Your task to perform on an android device: open app "PUBG MOBILE" (install if not already installed), go to login, and select forgot password Image 0: 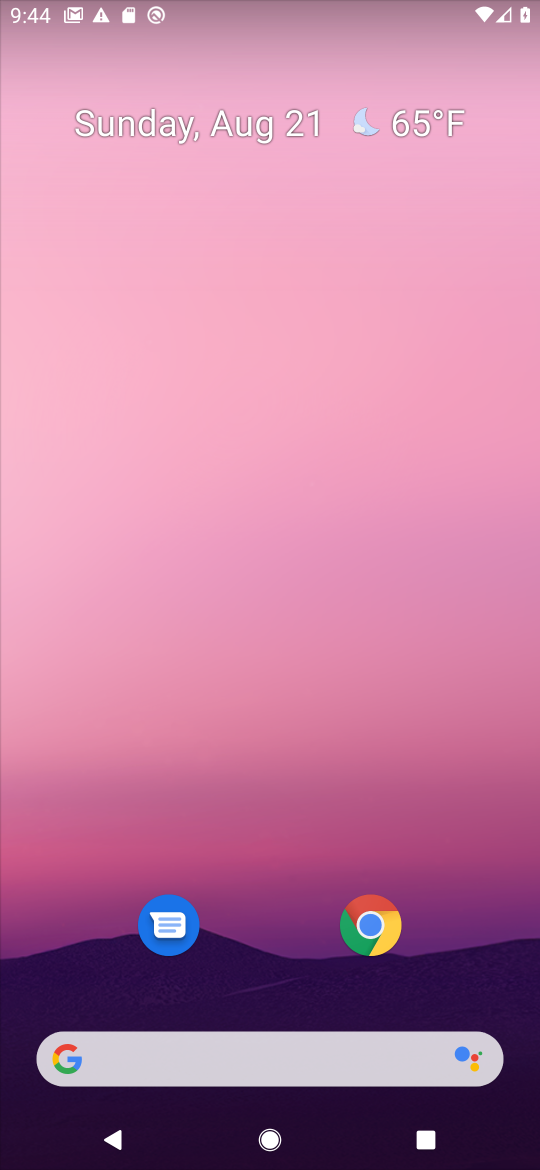
Step 0: drag from (218, 985) to (322, 76)
Your task to perform on an android device: open app "PUBG MOBILE" (install if not already installed), go to login, and select forgot password Image 1: 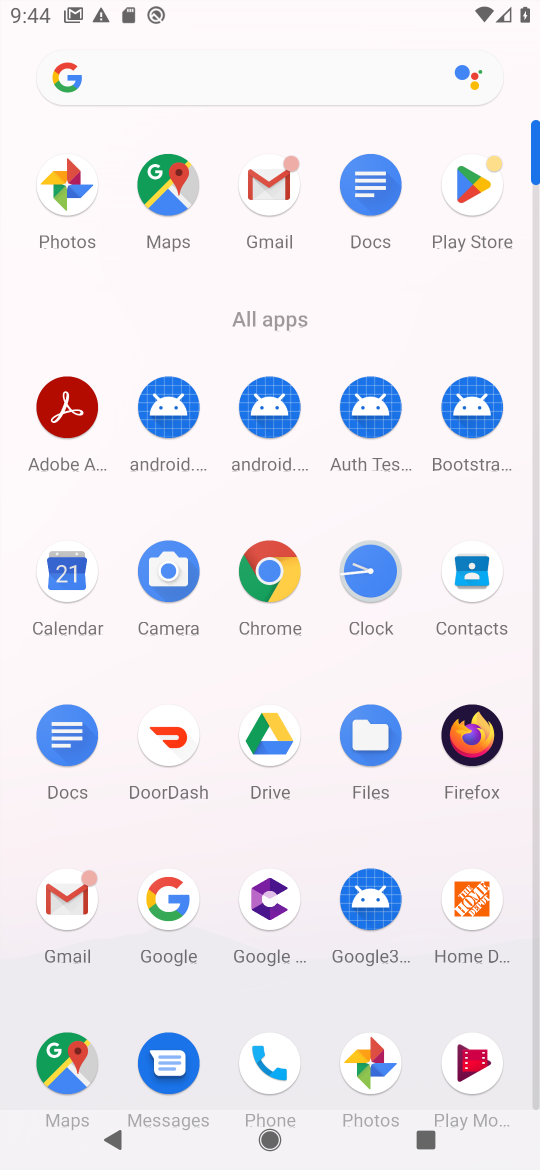
Step 1: click (487, 187)
Your task to perform on an android device: open app "PUBG MOBILE" (install if not already installed), go to login, and select forgot password Image 2: 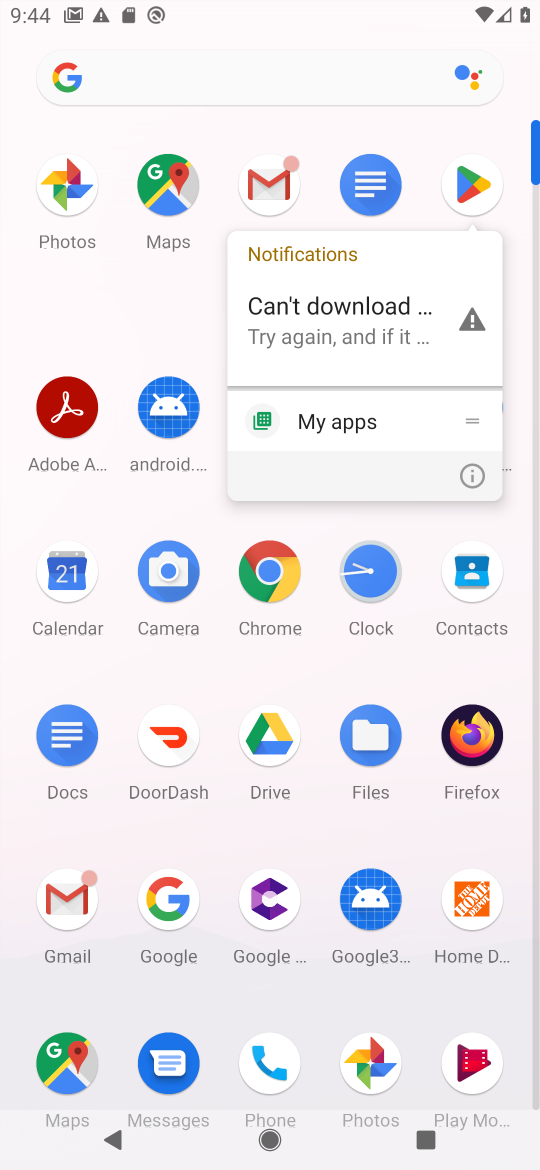
Step 2: click (465, 151)
Your task to perform on an android device: open app "PUBG MOBILE" (install if not already installed), go to login, and select forgot password Image 3: 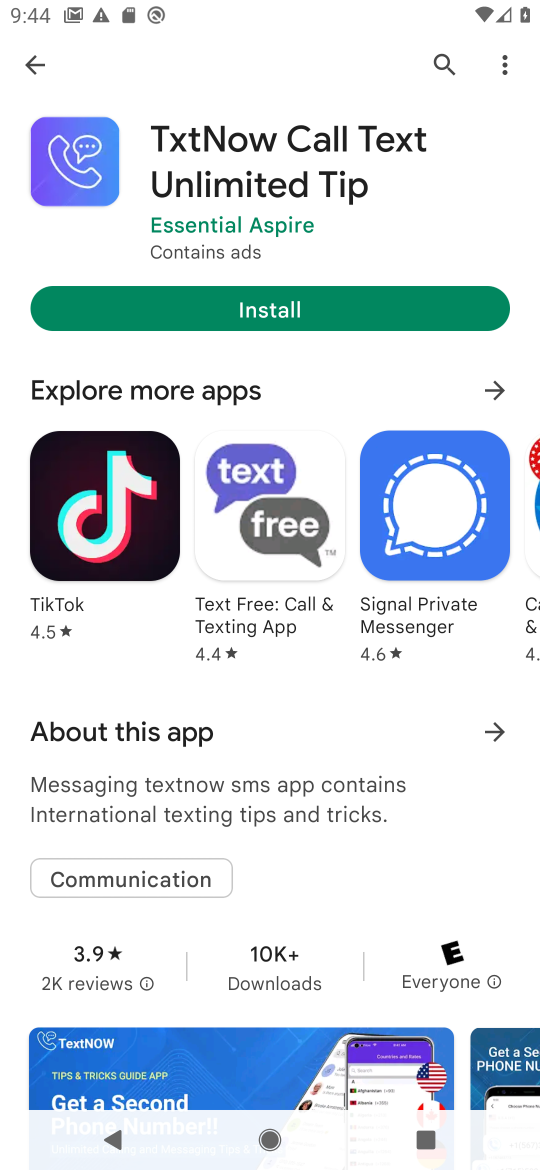
Step 3: click (445, 53)
Your task to perform on an android device: open app "PUBG MOBILE" (install if not already installed), go to login, and select forgot password Image 4: 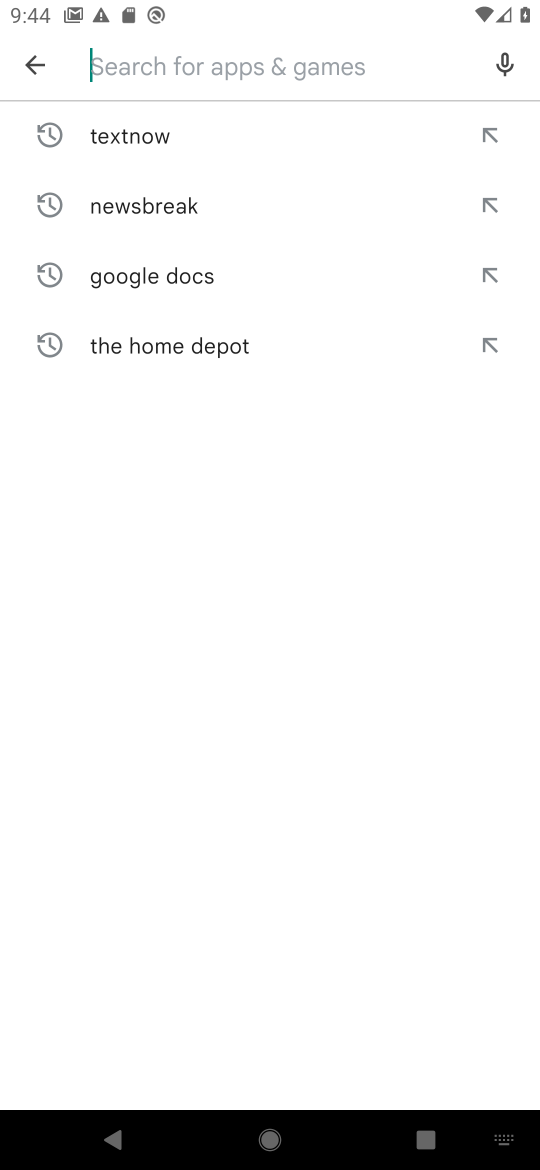
Step 4: click (113, 55)
Your task to perform on an android device: open app "PUBG MOBILE" (install if not already installed), go to login, and select forgot password Image 5: 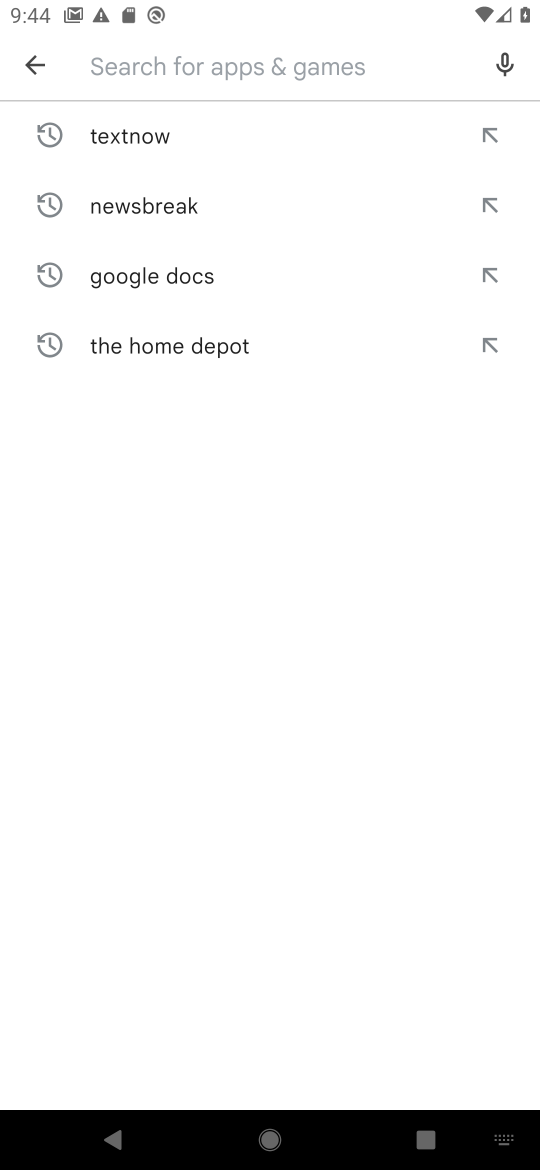
Step 5: click (206, 71)
Your task to perform on an android device: open app "PUBG MOBILE" (install if not already installed), go to login, and select forgot password Image 6: 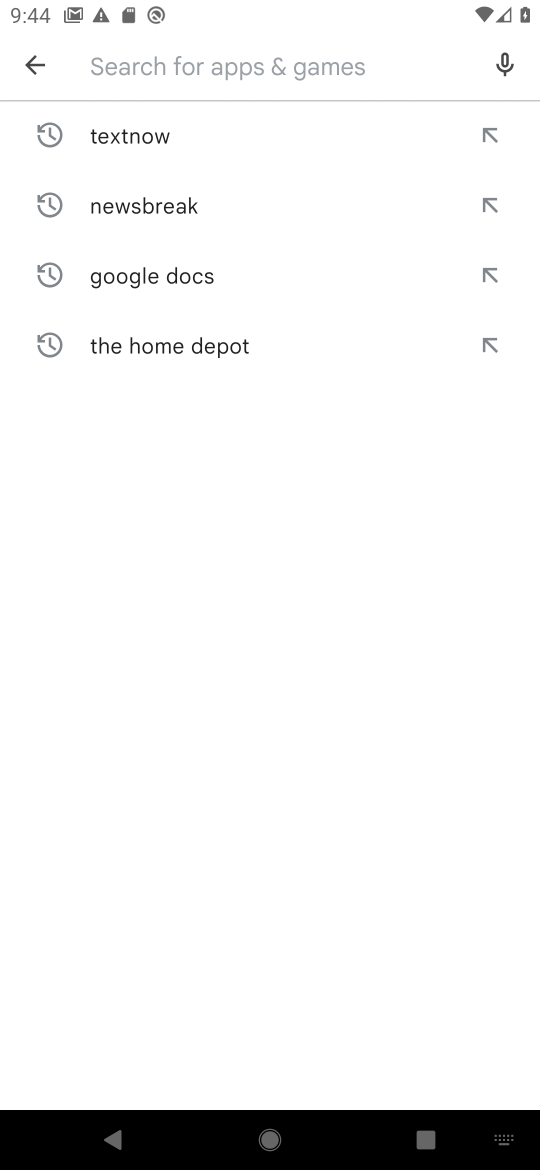
Step 6: type "PUBG MOBILE"
Your task to perform on an android device: open app "PUBG MOBILE" (install if not already installed), go to login, and select forgot password Image 7: 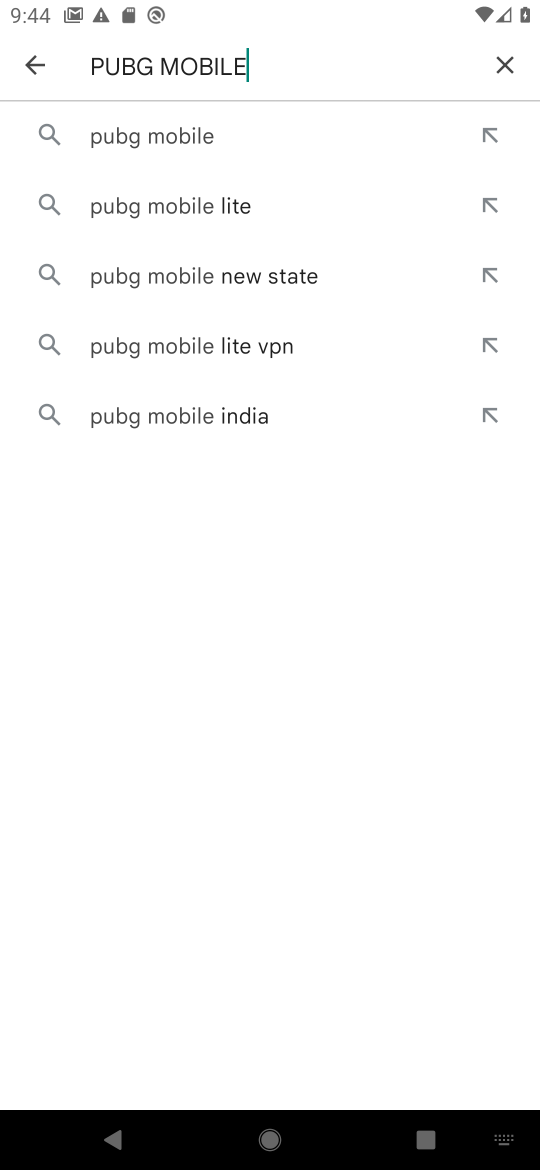
Step 7: click (205, 135)
Your task to perform on an android device: open app "PUBG MOBILE" (install if not already installed), go to login, and select forgot password Image 8: 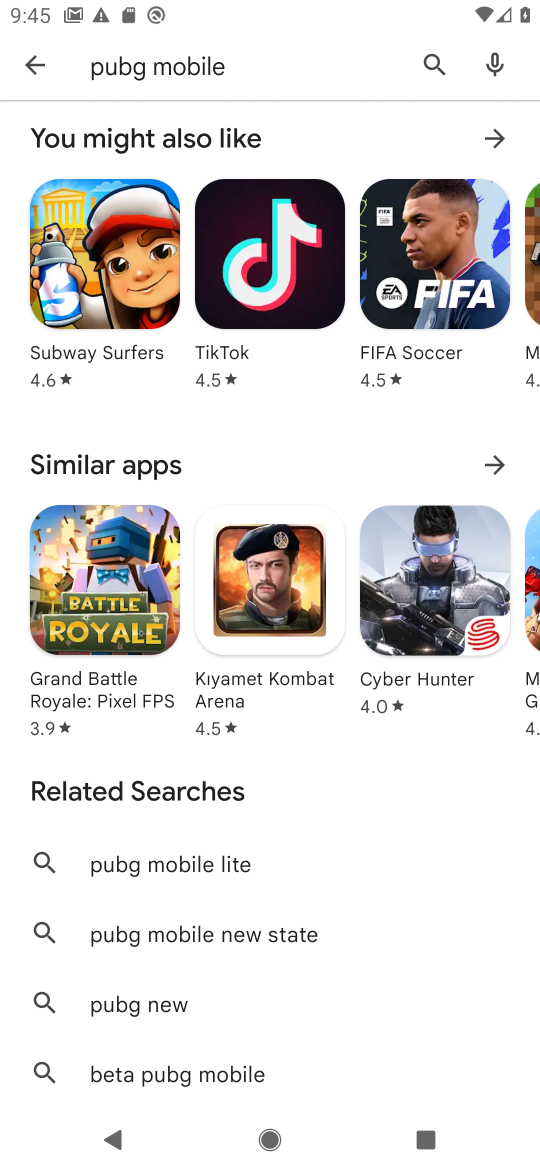
Step 8: task complete